Your task to perform on an android device: What's the weather today? Image 0: 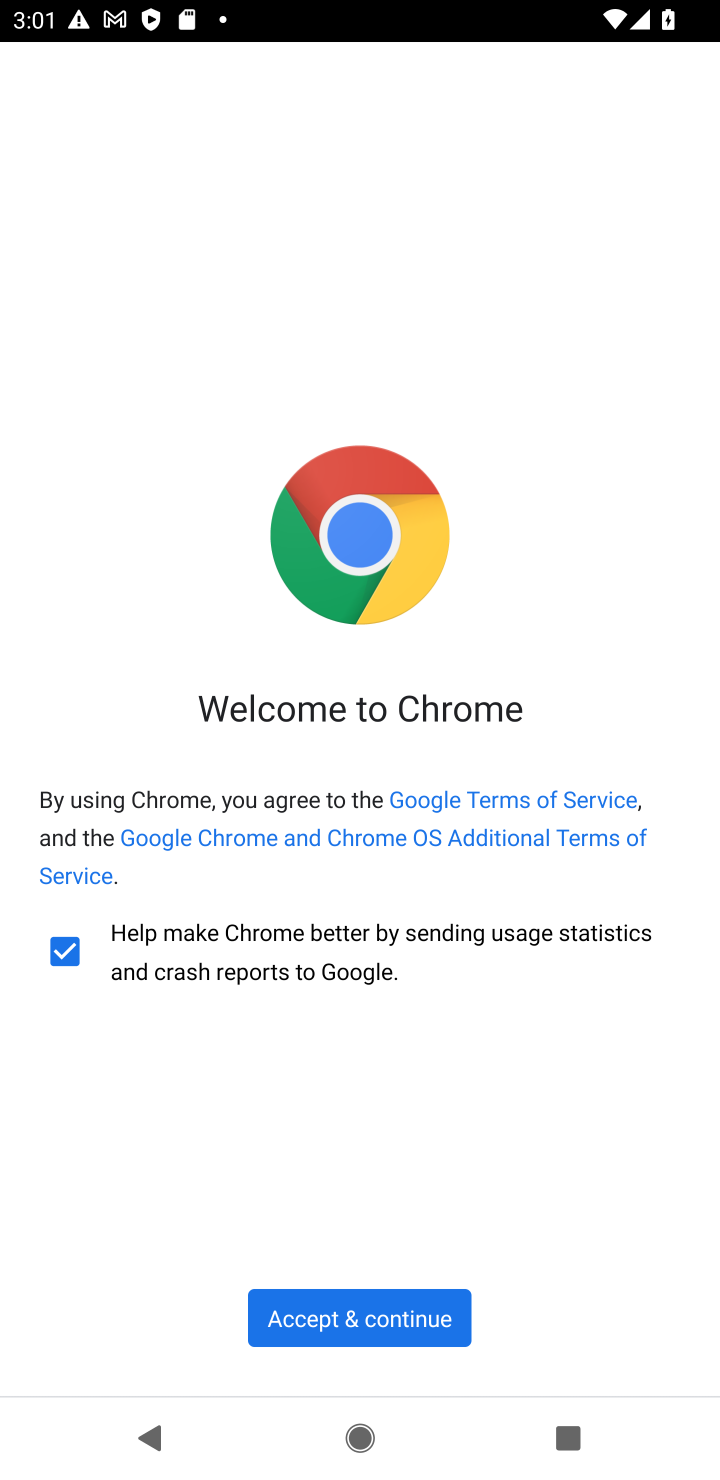
Step 0: press back button
Your task to perform on an android device: What's the weather today? Image 1: 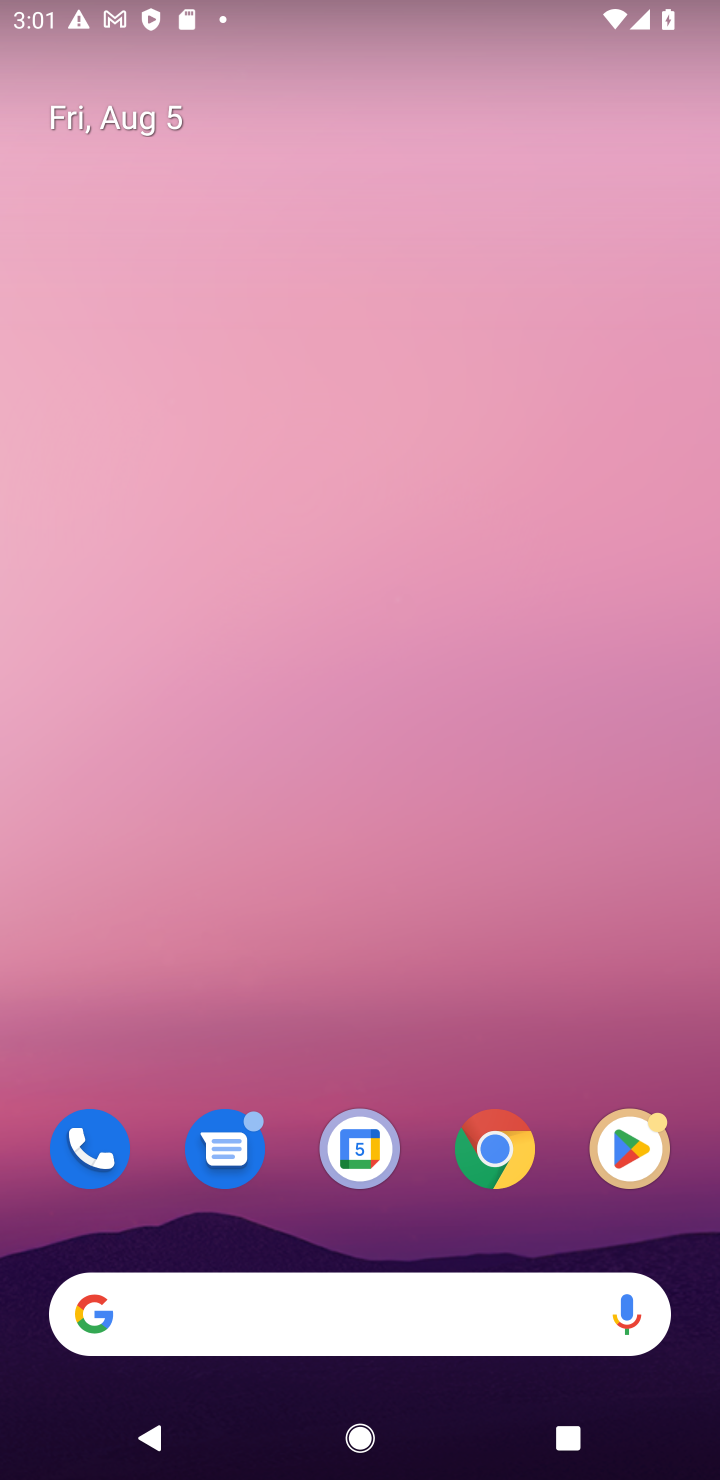
Step 1: click (251, 1305)
Your task to perform on an android device: What's the weather today? Image 2: 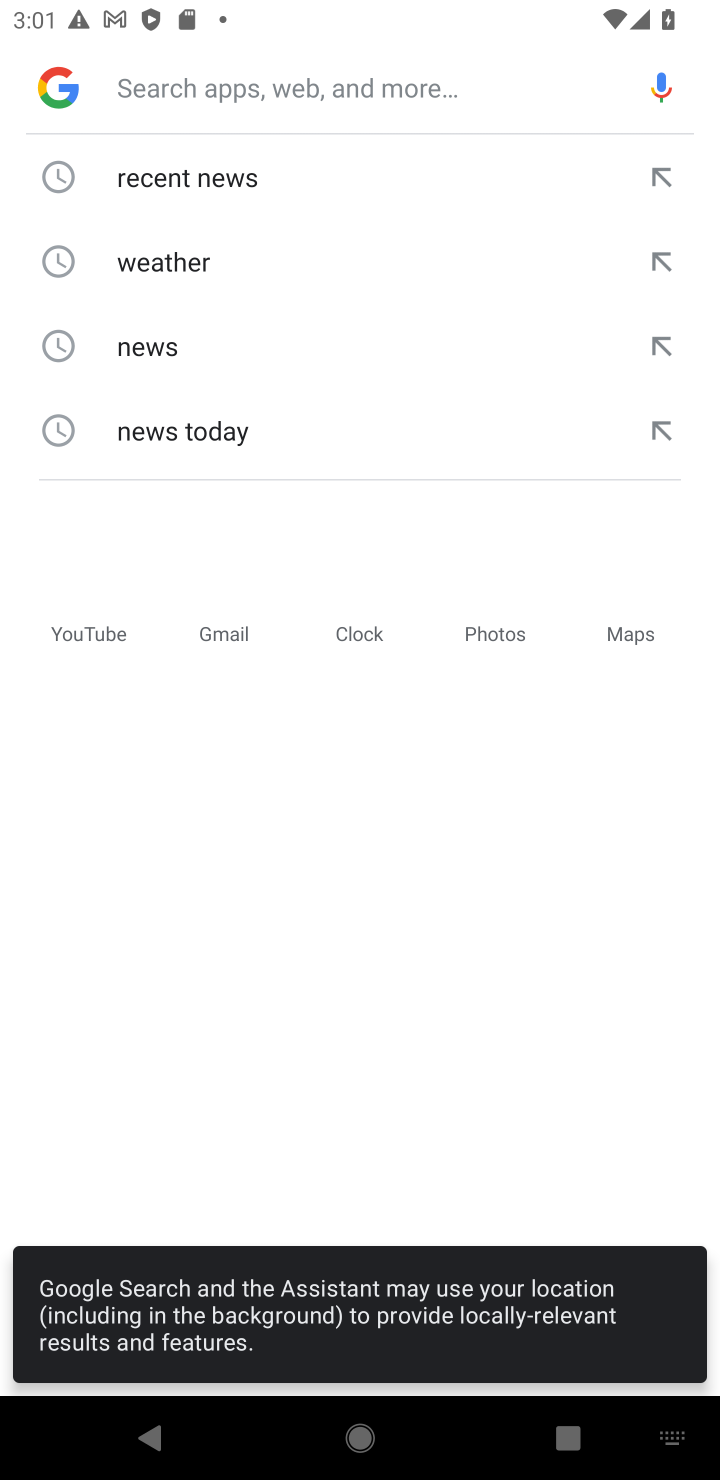
Step 2: click (127, 263)
Your task to perform on an android device: What's the weather today? Image 3: 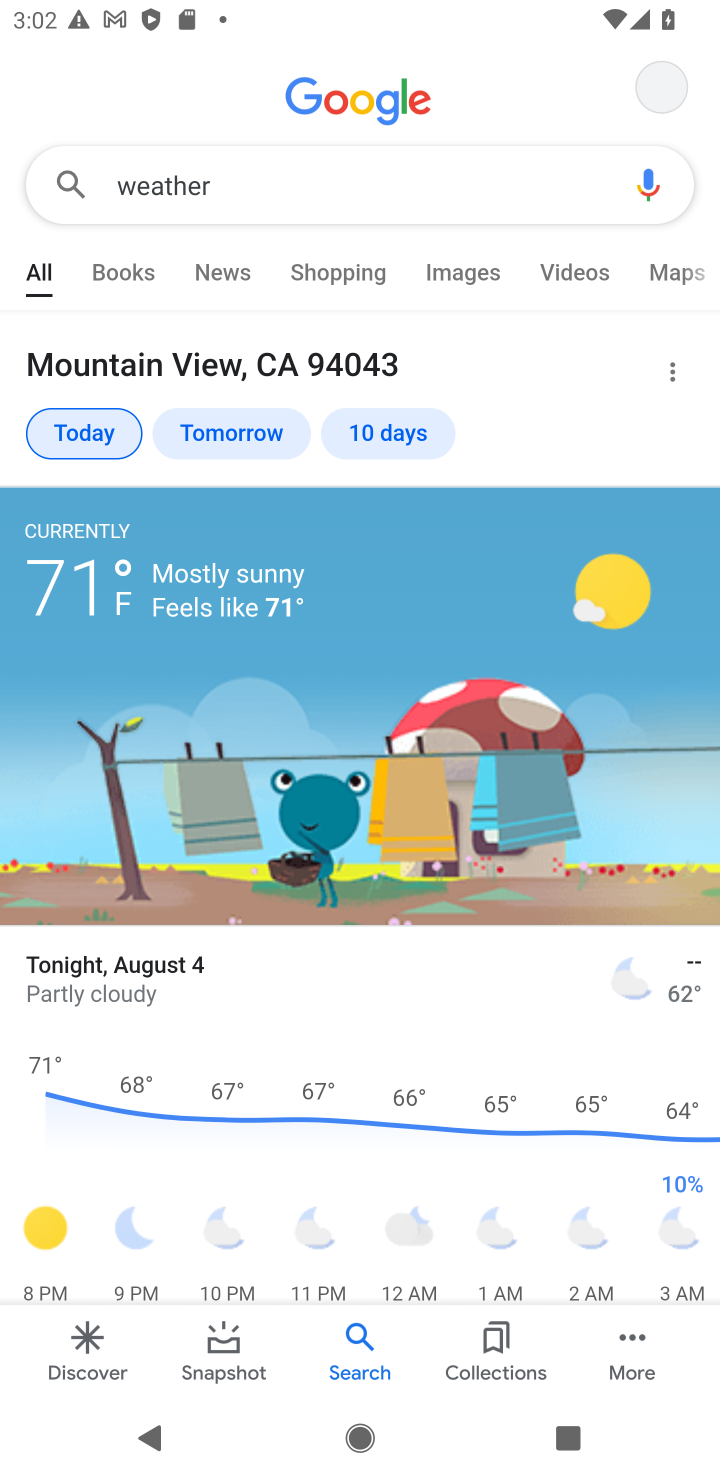
Step 3: task complete